Your task to perform on an android device: turn notification dots on Image 0: 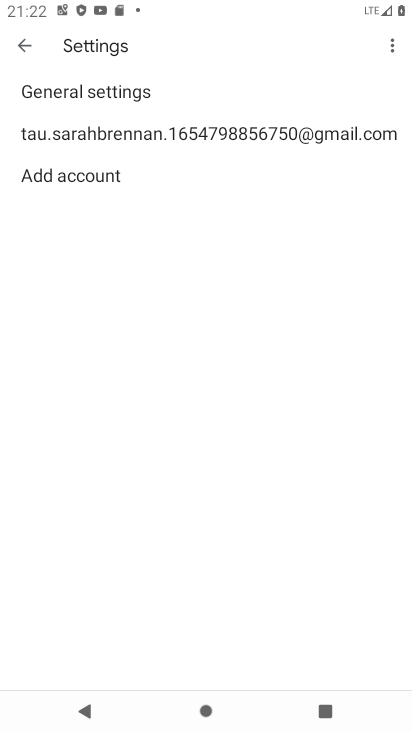
Step 0: press home button
Your task to perform on an android device: turn notification dots on Image 1: 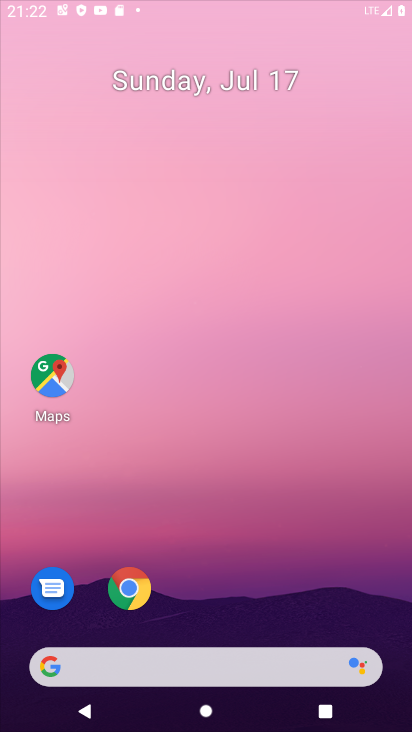
Step 1: drag from (238, 604) to (274, 71)
Your task to perform on an android device: turn notification dots on Image 2: 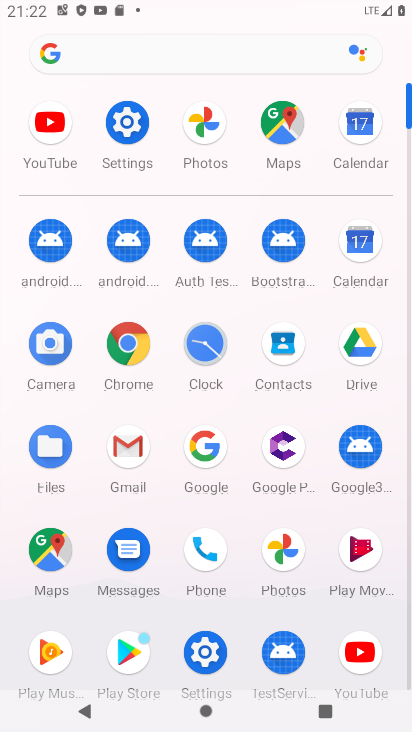
Step 2: click (127, 129)
Your task to perform on an android device: turn notification dots on Image 3: 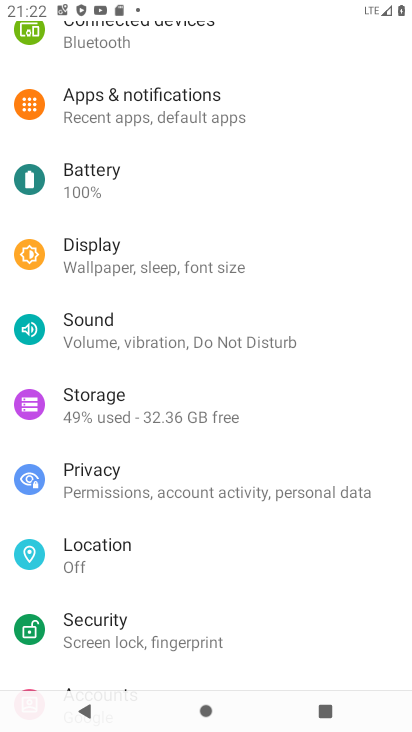
Step 3: click (142, 110)
Your task to perform on an android device: turn notification dots on Image 4: 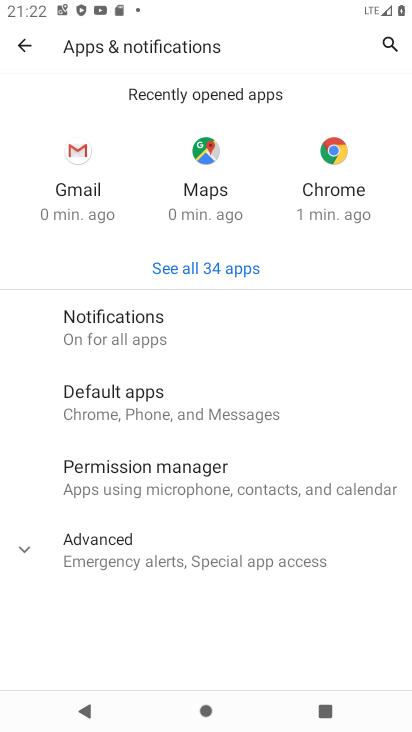
Step 4: click (104, 340)
Your task to perform on an android device: turn notification dots on Image 5: 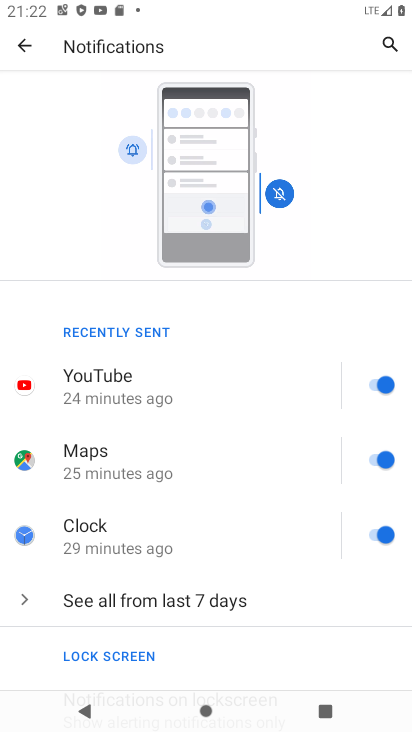
Step 5: drag from (186, 563) to (228, 179)
Your task to perform on an android device: turn notification dots on Image 6: 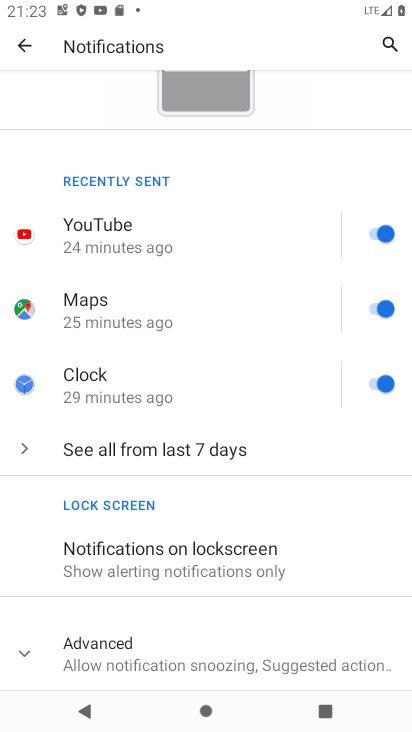
Step 6: drag from (252, 546) to (285, 14)
Your task to perform on an android device: turn notification dots on Image 7: 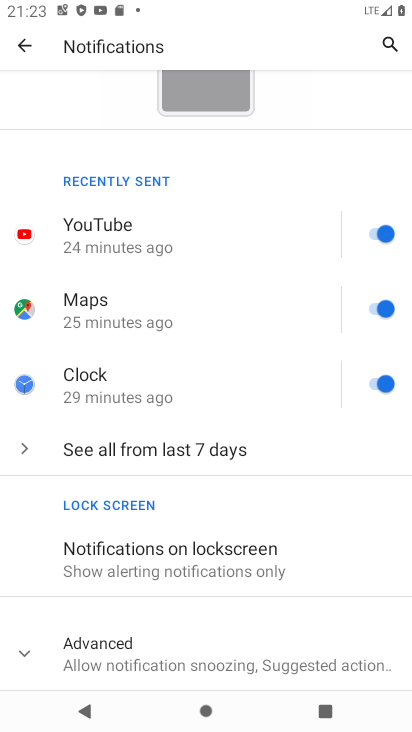
Step 7: click (66, 643)
Your task to perform on an android device: turn notification dots on Image 8: 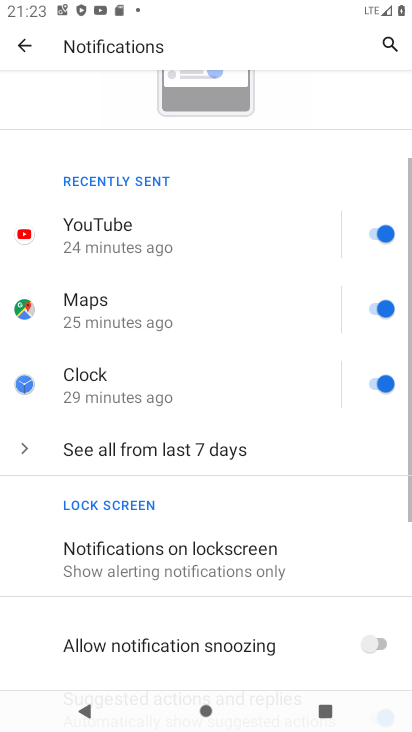
Step 8: task complete